Your task to perform on an android device: Open accessibility settings Image 0: 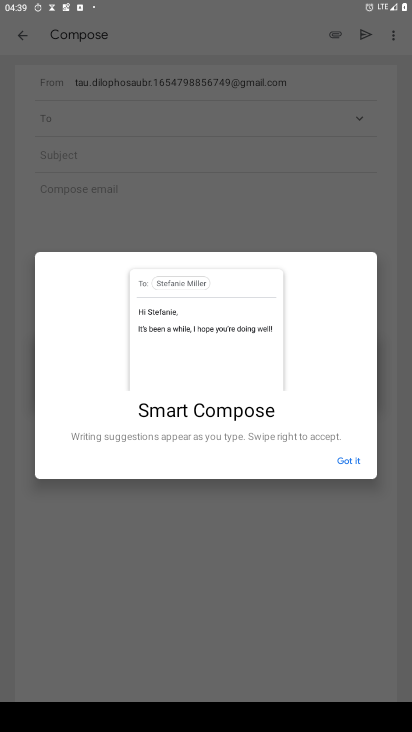
Step 0: press home button
Your task to perform on an android device: Open accessibility settings Image 1: 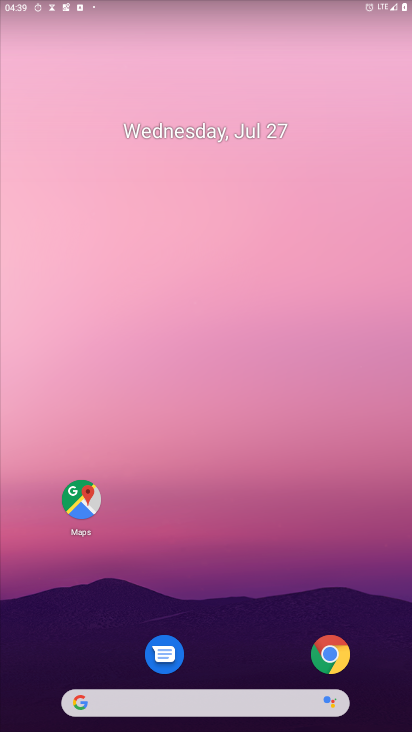
Step 1: drag from (224, 668) to (317, 25)
Your task to perform on an android device: Open accessibility settings Image 2: 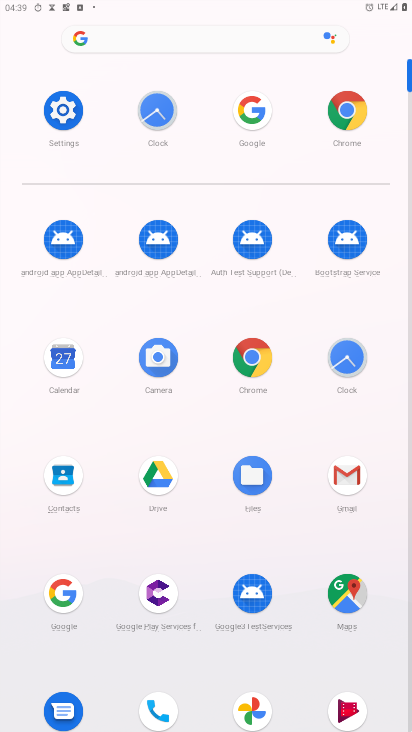
Step 2: click (67, 102)
Your task to perform on an android device: Open accessibility settings Image 3: 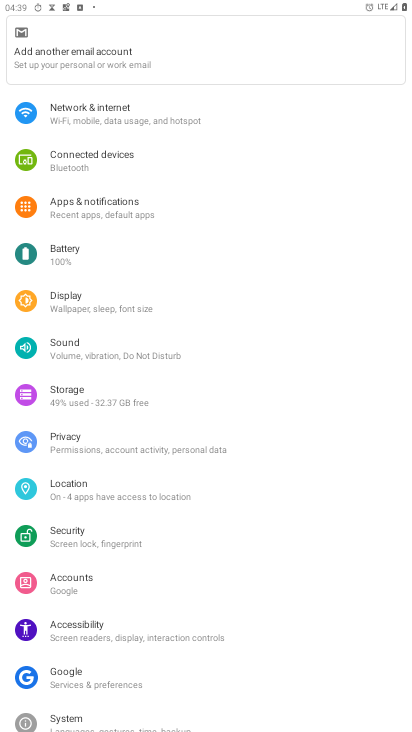
Step 3: click (90, 635)
Your task to perform on an android device: Open accessibility settings Image 4: 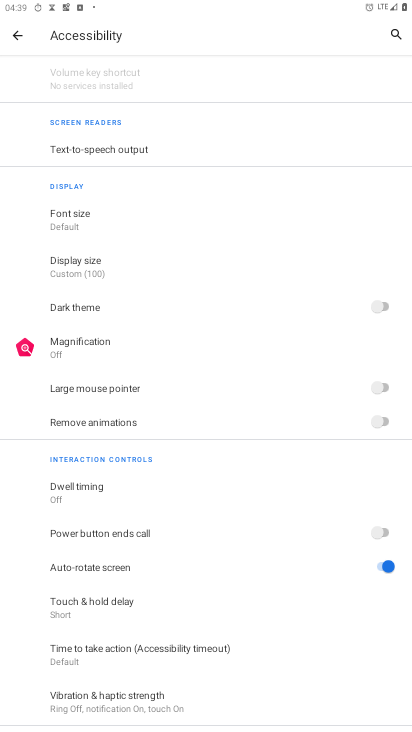
Step 4: task complete